Your task to perform on an android device: allow cookies in the chrome app Image 0: 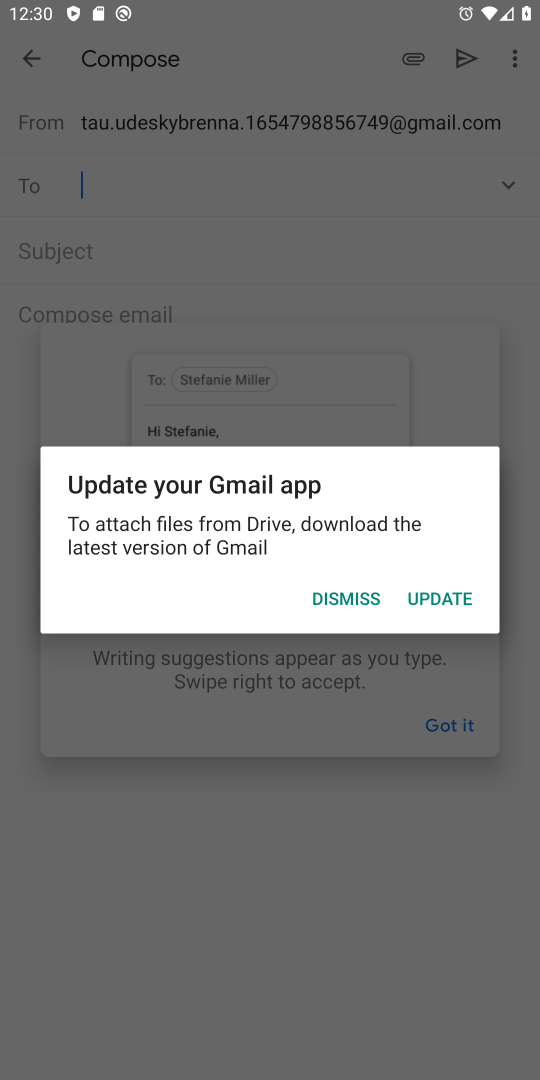
Step 0: press home button
Your task to perform on an android device: allow cookies in the chrome app Image 1: 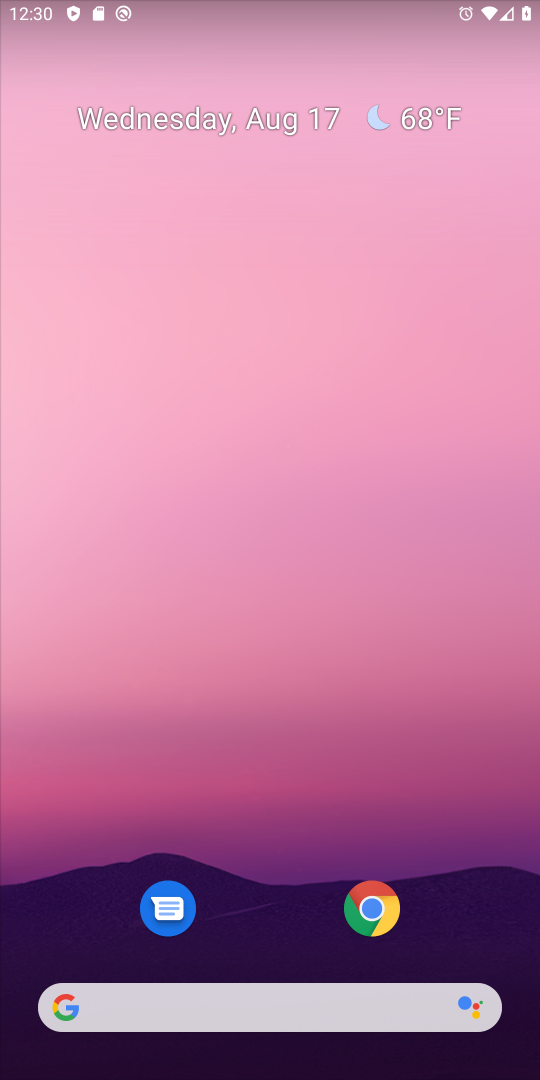
Step 1: click (375, 895)
Your task to perform on an android device: allow cookies in the chrome app Image 2: 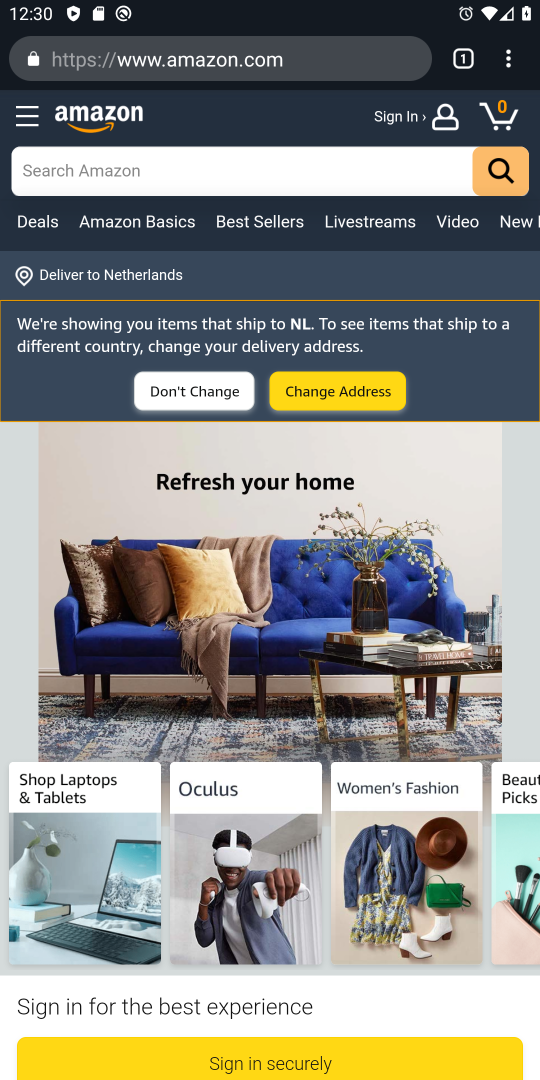
Step 2: click (514, 59)
Your task to perform on an android device: allow cookies in the chrome app Image 3: 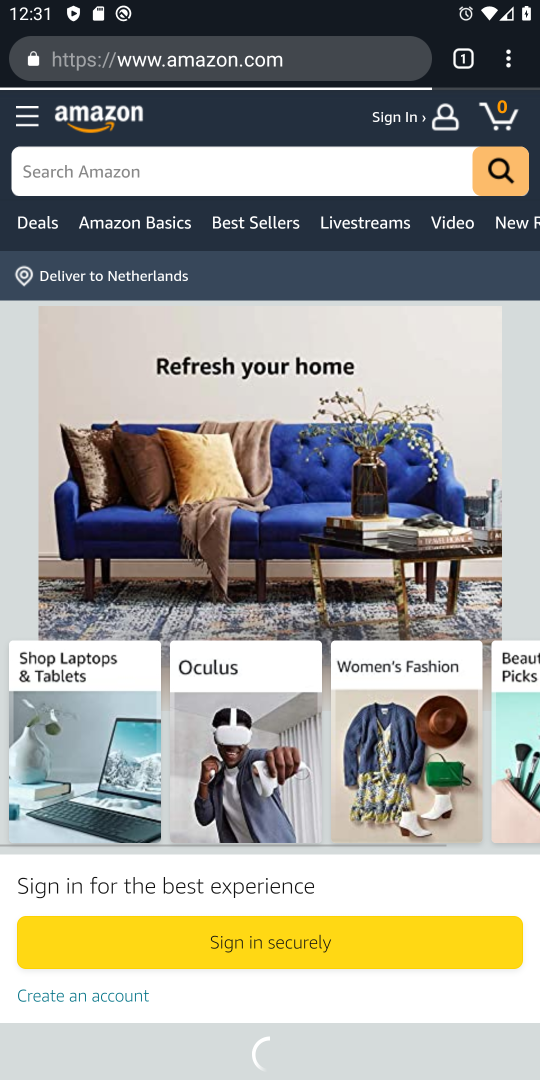
Step 3: click (512, 62)
Your task to perform on an android device: allow cookies in the chrome app Image 4: 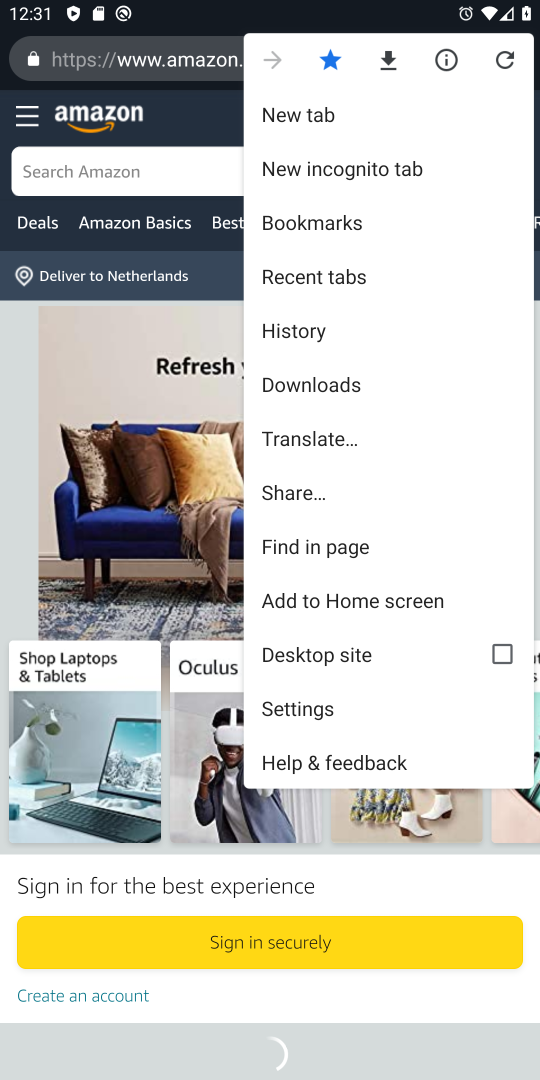
Step 4: click (320, 700)
Your task to perform on an android device: allow cookies in the chrome app Image 5: 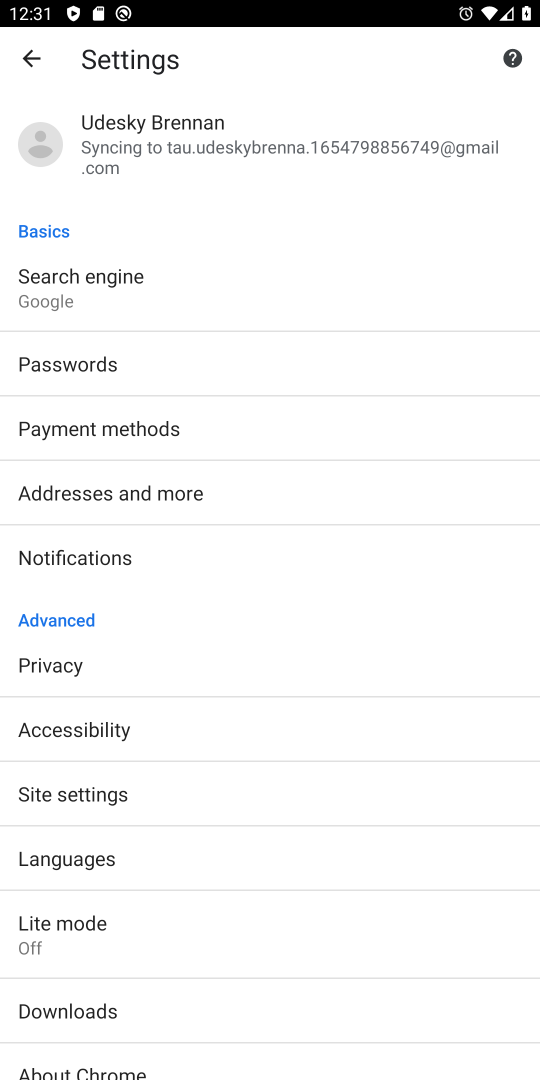
Step 5: click (97, 802)
Your task to perform on an android device: allow cookies in the chrome app Image 6: 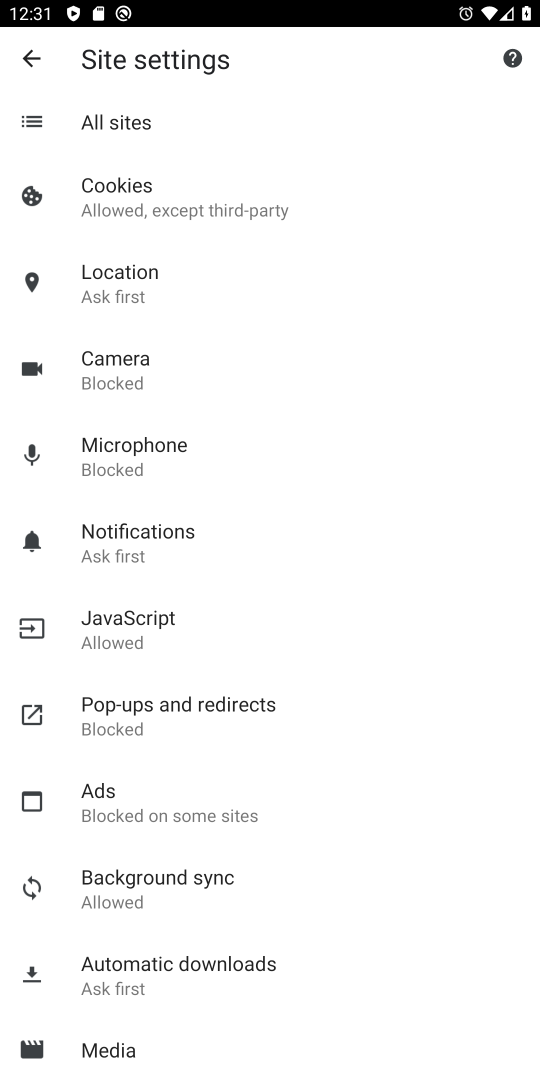
Step 6: click (179, 220)
Your task to perform on an android device: allow cookies in the chrome app Image 7: 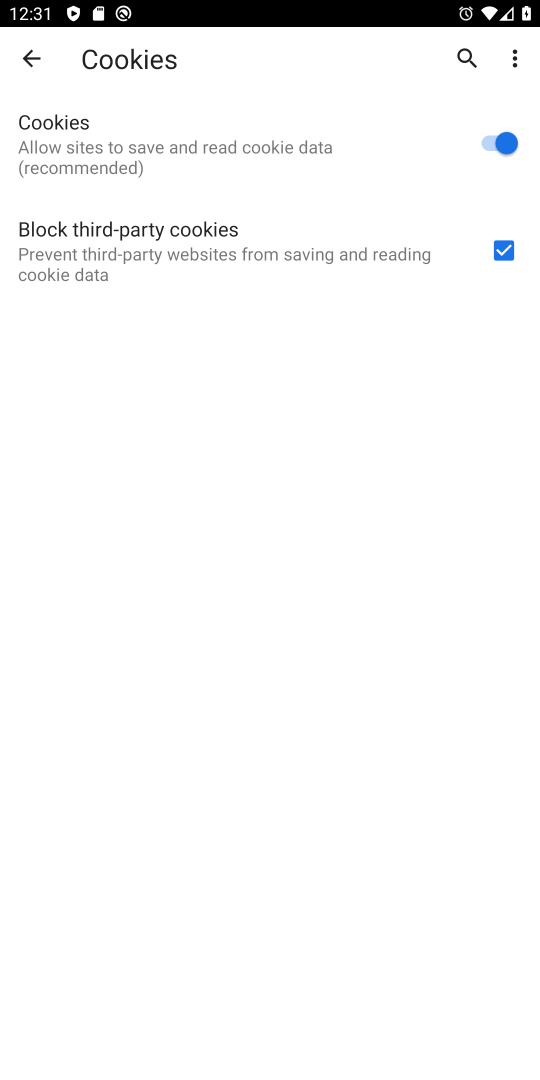
Step 7: task complete